Your task to perform on an android device: turn vacation reply on in the gmail app Image 0: 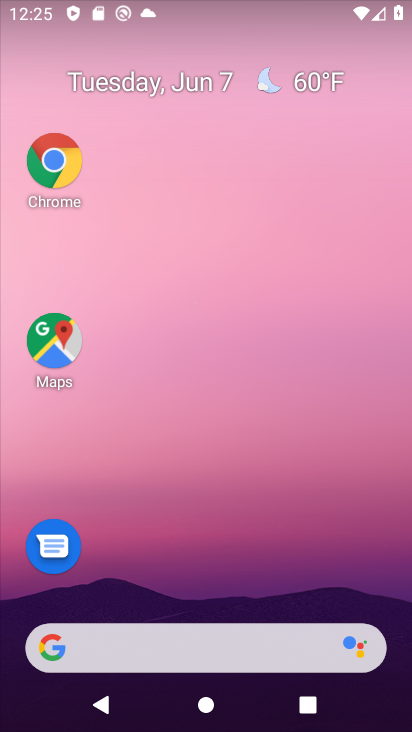
Step 0: drag from (227, 608) to (244, 28)
Your task to perform on an android device: turn vacation reply on in the gmail app Image 1: 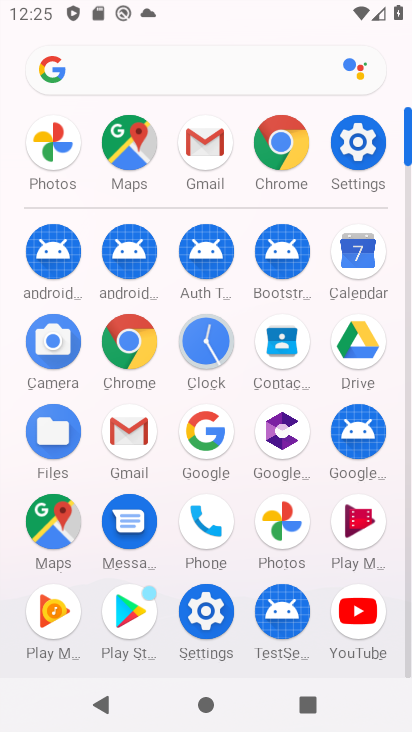
Step 1: click (131, 428)
Your task to perform on an android device: turn vacation reply on in the gmail app Image 2: 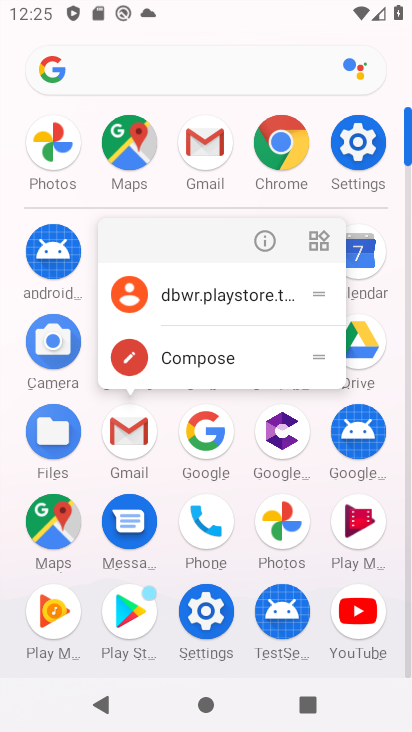
Step 2: click (259, 240)
Your task to perform on an android device: turn vacation reply on in the gmail app Image 3: 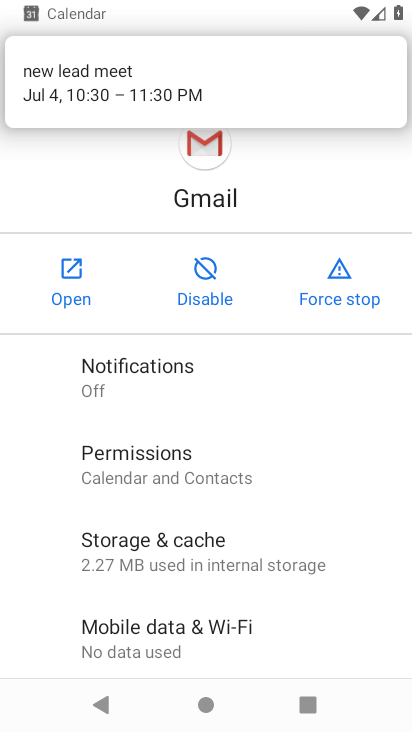
Step 3: click (67, 283)
Your task to perform on an android device: turn vacation reply on in the gmail app Image 4: 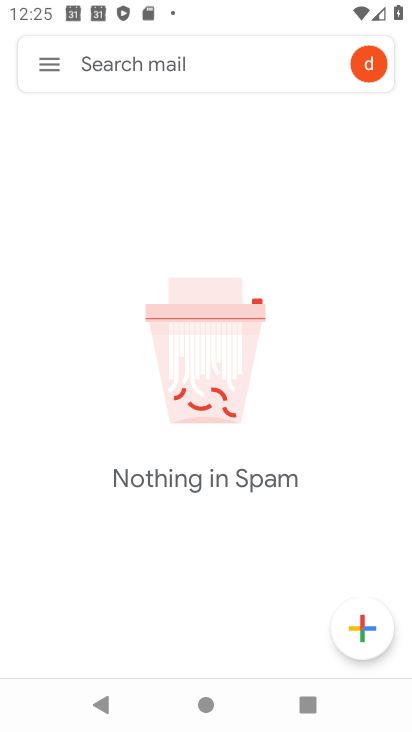
Step 4: drag from (208, 538) to (274, 284)
Your task to perform on an android device: turn vacation reply on in the gmail app Image 5: 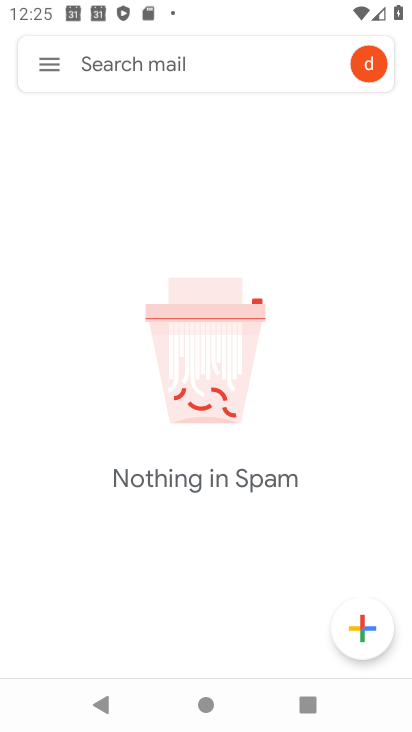
Step 5: click (54, 68)
Your task to perform on an android device: turn vacation reply on in the gmail app Image 6: 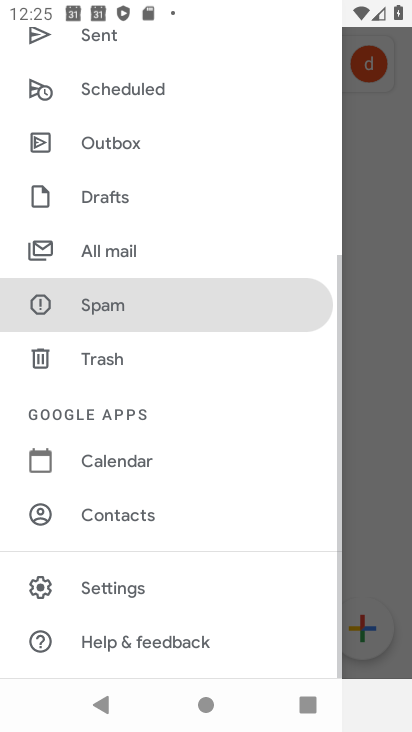
Step 6: drag from (165, 606) to (374, 55)
Your task to perform on an android device: turn vacation reply on in the gmail app Image 7: 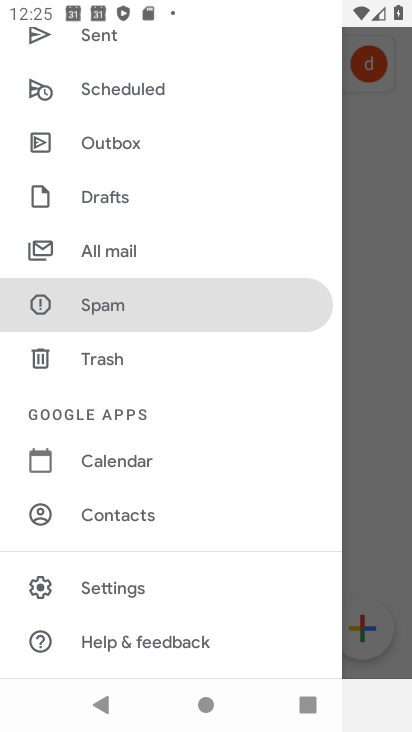
Step 7: click (109, 597)
Your task to perform on an android device: turn vacation reply on in the gmail app Image 8: 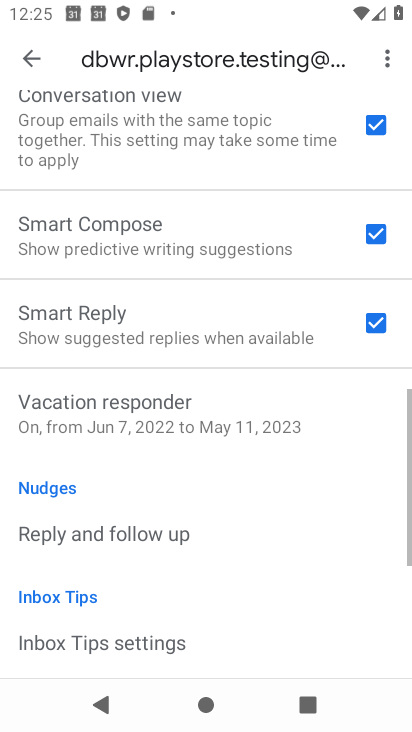
Step 8: drag from (112, 589) to (192, 164)
Your task to perform on an android device: turn vacation reply on in the gmail app Image 9: 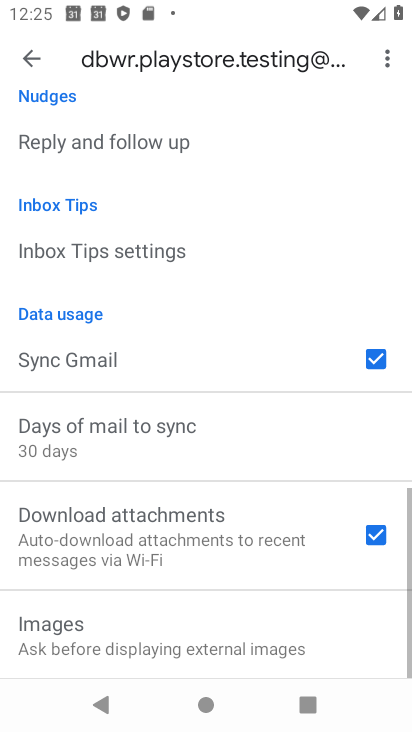
Step 9: drag from (180, 210) to (158, 624)
Your task to perform on an android device: turn vacation reply on in the gmail app Image 10: 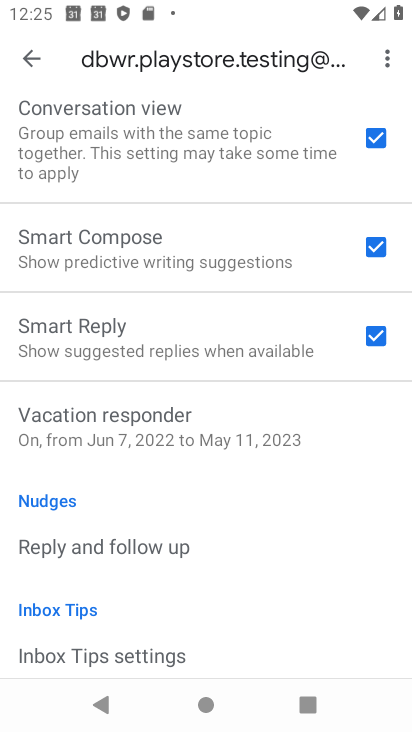
Step 10: click (226, 425)
Your task to perform on an android device: turn vacation reply on in the gmail app Image 11: 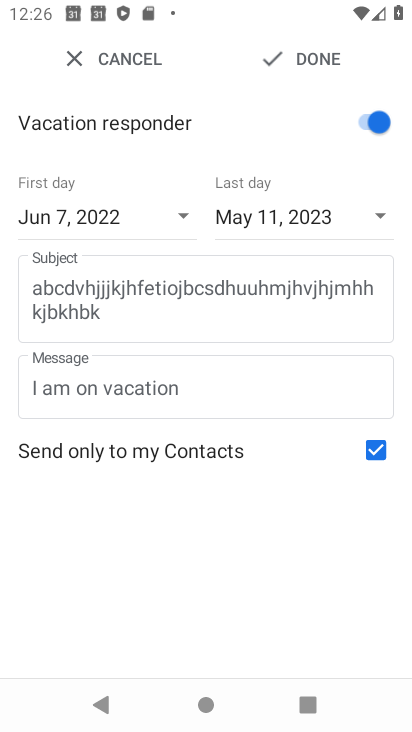
Step 11: click (292, 45)
Your task to perform on an android device: turn vacation reply on in the gmail app Image 12: 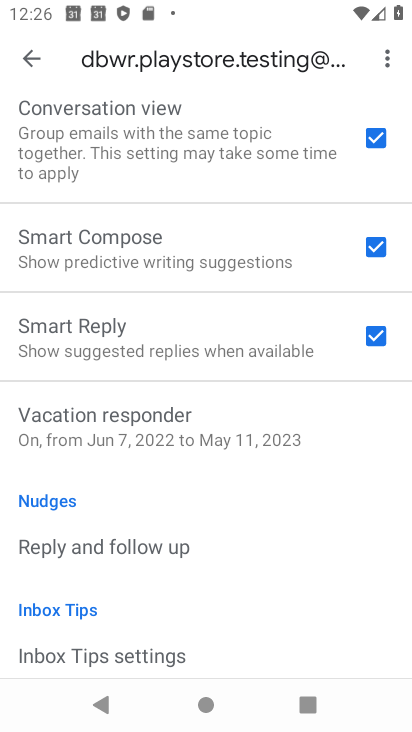
Step 12: task complete